Your task to perform on an android device: What is the news today? Image 0: 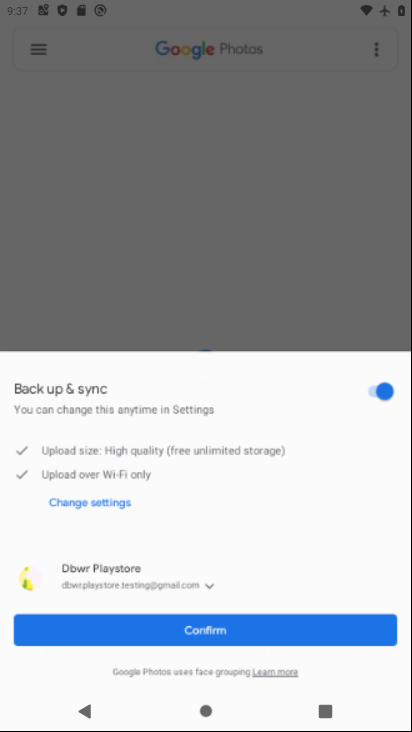
Step 0: drag from (216, 624) to (167, 170)
Your task to perform on an android device: What is the news today? Image 1: 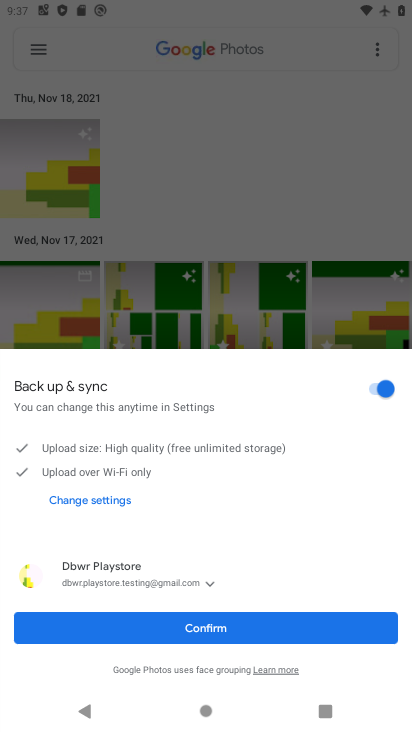
Step 1: press home button
Your task to perform on an android device: What is the news today? Image 2: 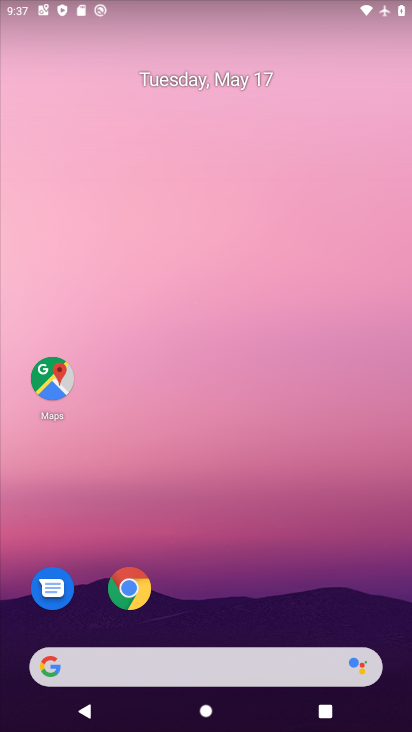
Step 2: click (222, 657)
Your task to perform on an android device: What is the news today? Image 3: 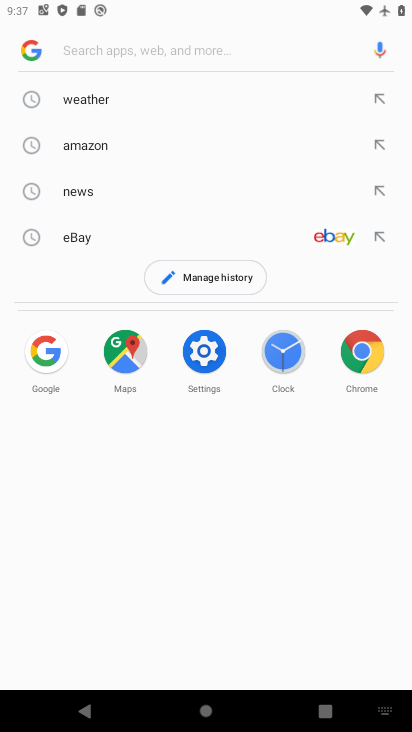
Step 3: click (84, 189)
Your task to perform on an android device: What is the news today? Image 4: 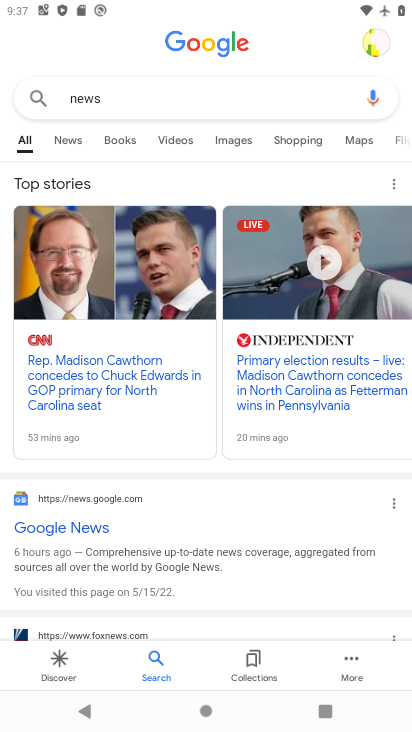
Step 4: task complete